Your task to perform on an android device: set default search engine in the chrome app Image 0: 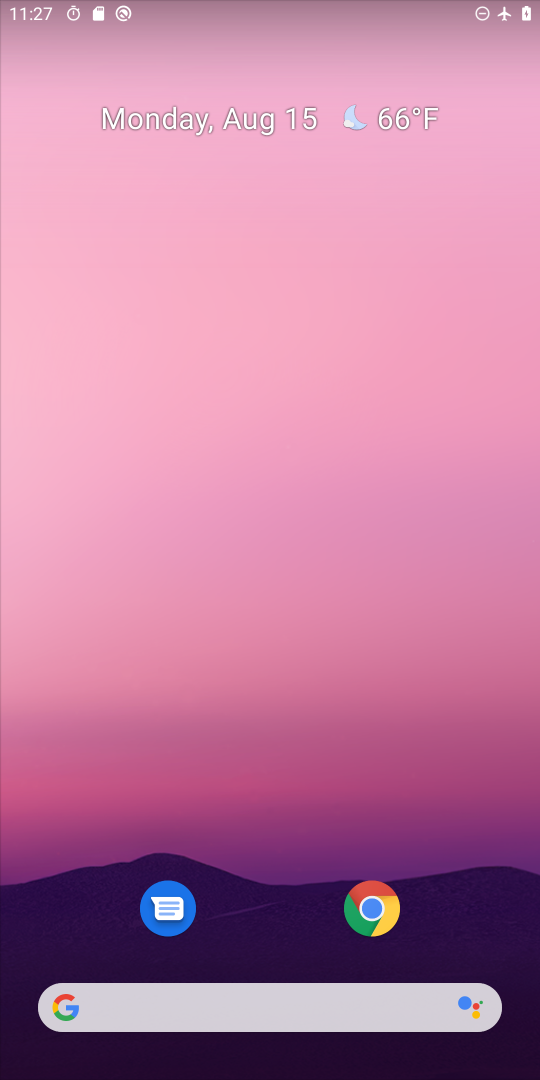
Step 0: click (378, 892)
Your task to perform on an android device: set default search engine in the chrome app Image 1: 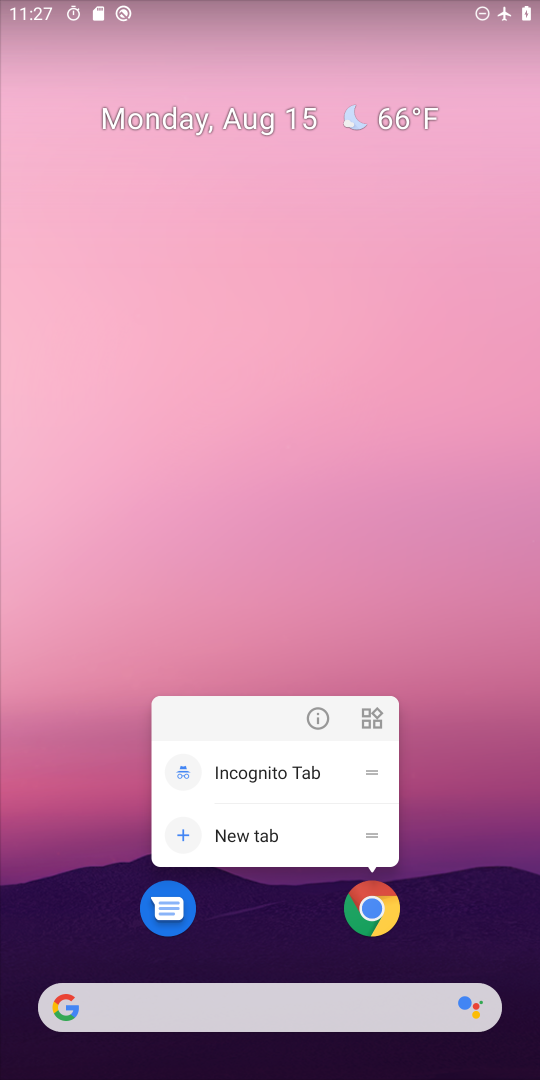
Step 1: click (379, 918)
Your task to perform on an android device: set default search engine in the chrome app Image 2: 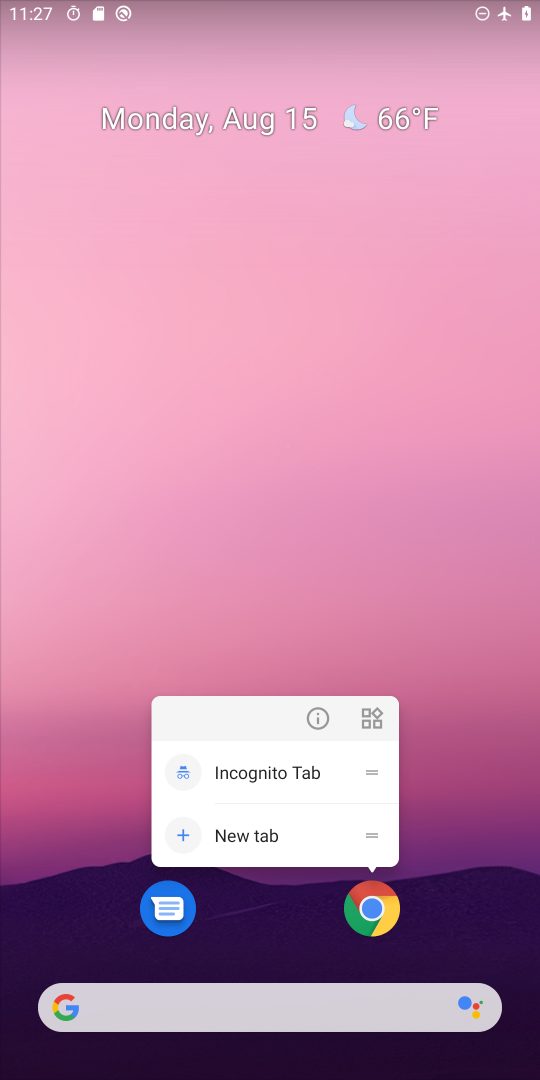
Step 2: click (366, 913)
Your task to perform on an android device: set default search engine in the chrome app Image 3: 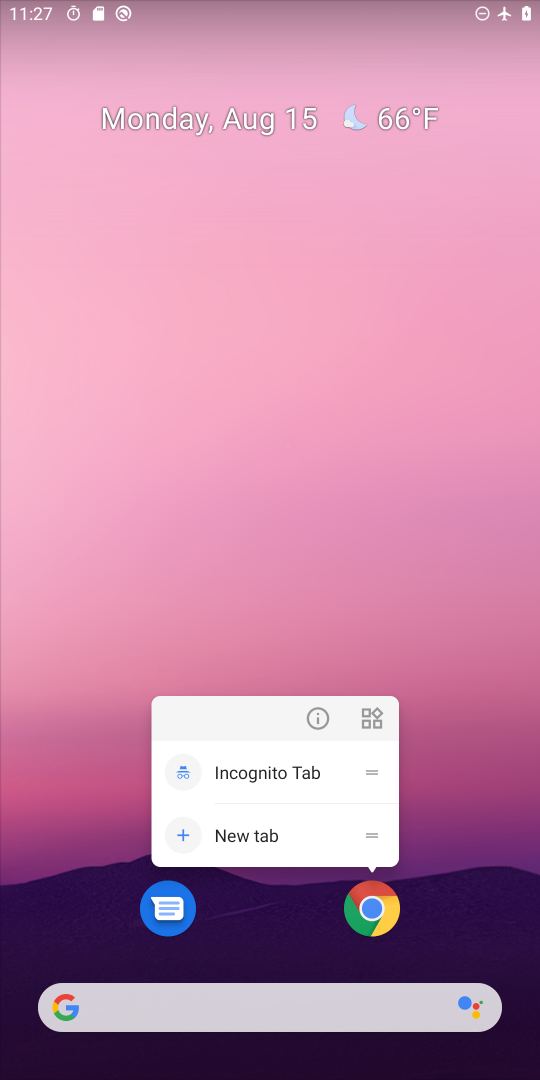
Step 3: click (366, 913)
Your task to perform on an android device: set default search engine in the chrome app Image 4: 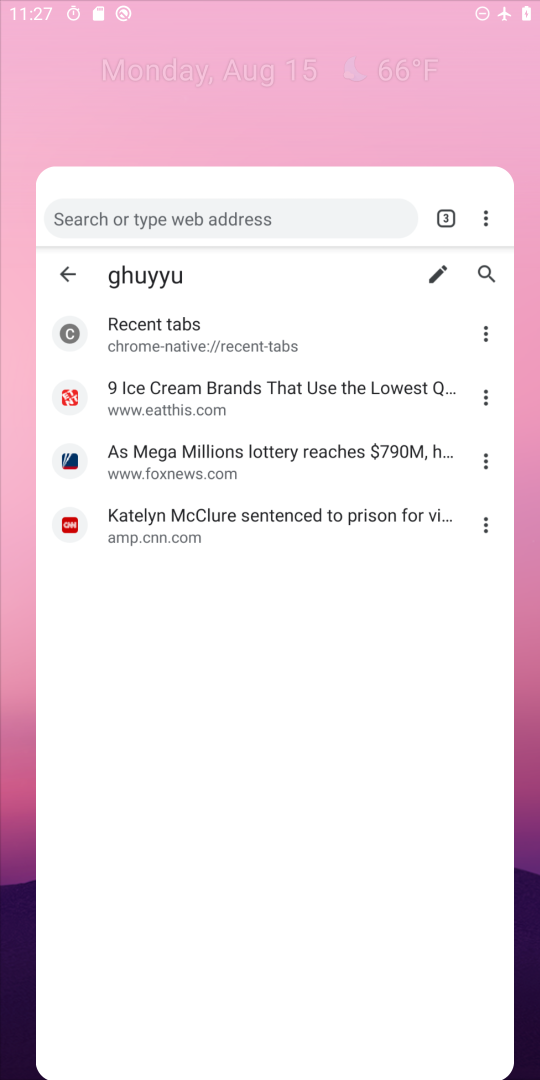
Step 4: click (366, 913)
Your task to perform on an android device: set default search engine in the chrome app Image 5: 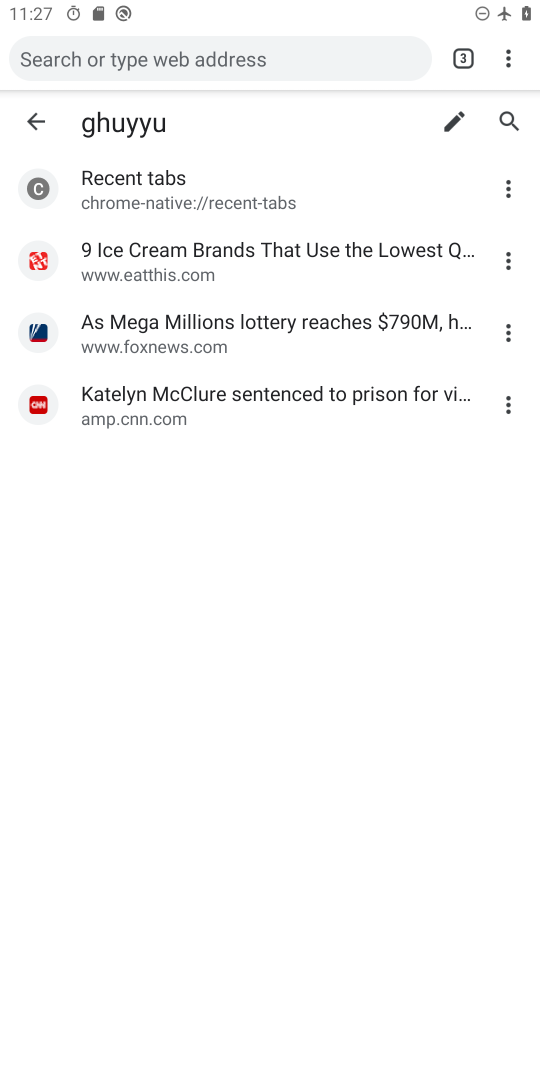
Step 5: click (519, 61)
Your task to perform on an android device: set default search engine in the chrome app Image 6: 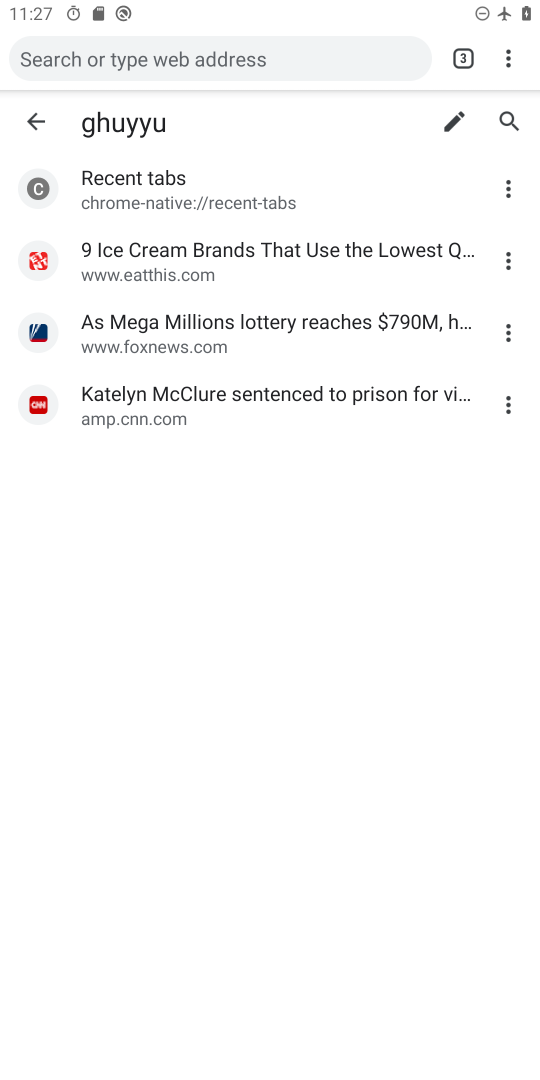
Step 6: click (499, 53)
Your task to perform on an android device: set default search engine in the chrome app Image 7: 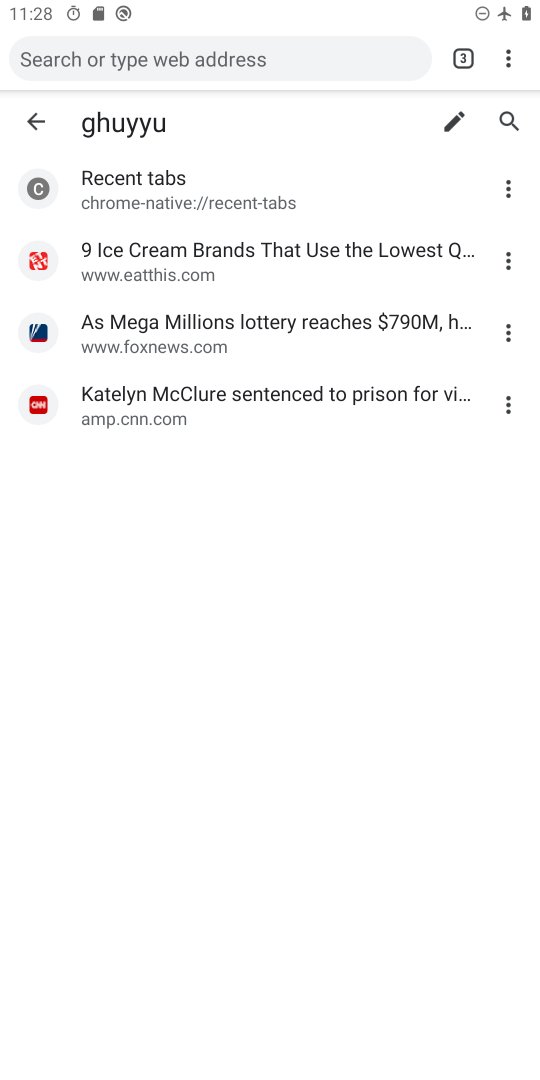
Step 7: click (506, 48)
Your task to perform on an android device: set default search engine in the chrome app Image 8: 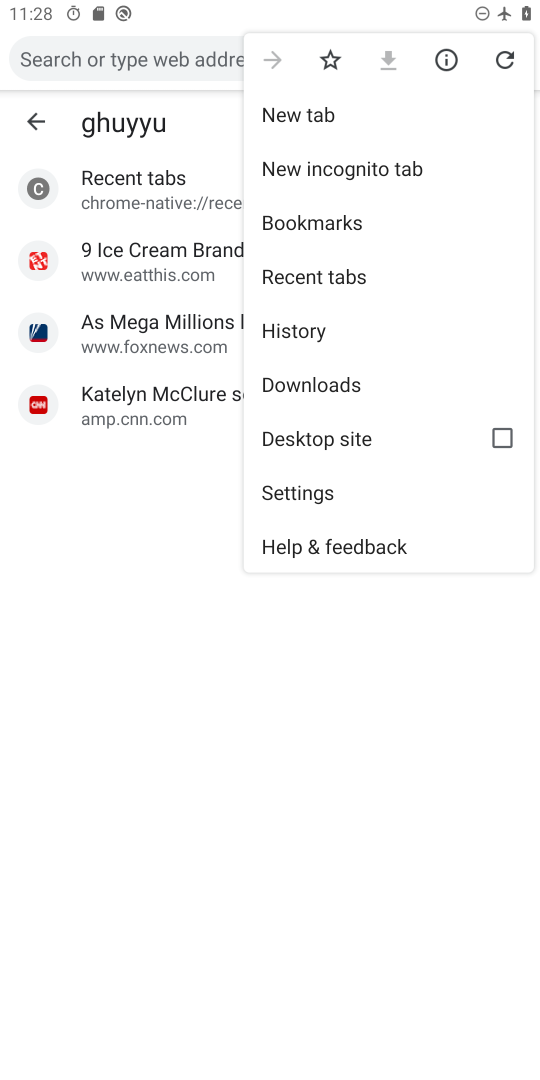
Step 8: click (320, 488)
Your task to perform on an android device: set default search engine in the chrome app Image 9: 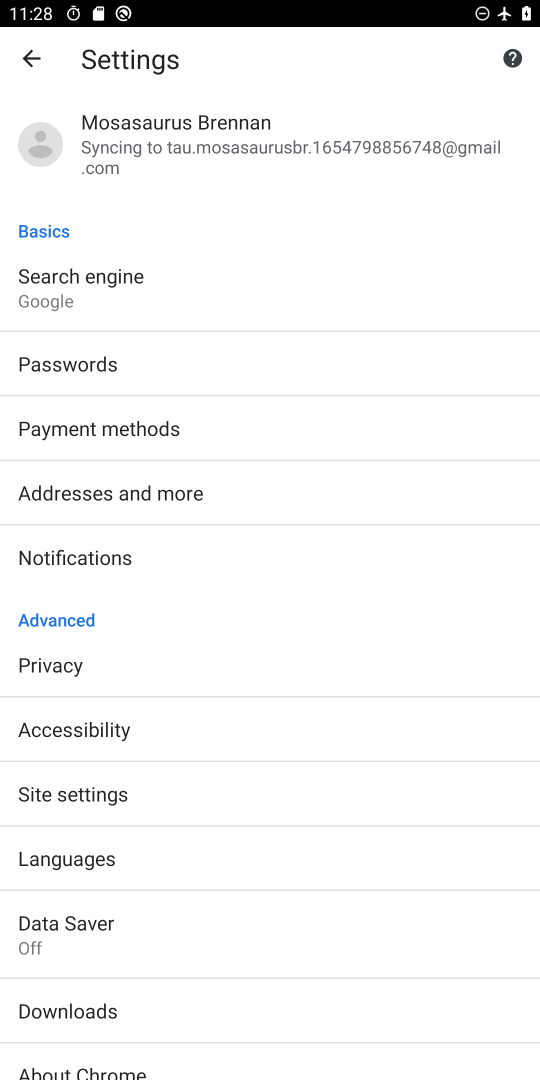
Step 9: click (61, 281)
Your task to perform on an android device: set default search engine in the chrome app Image 10: 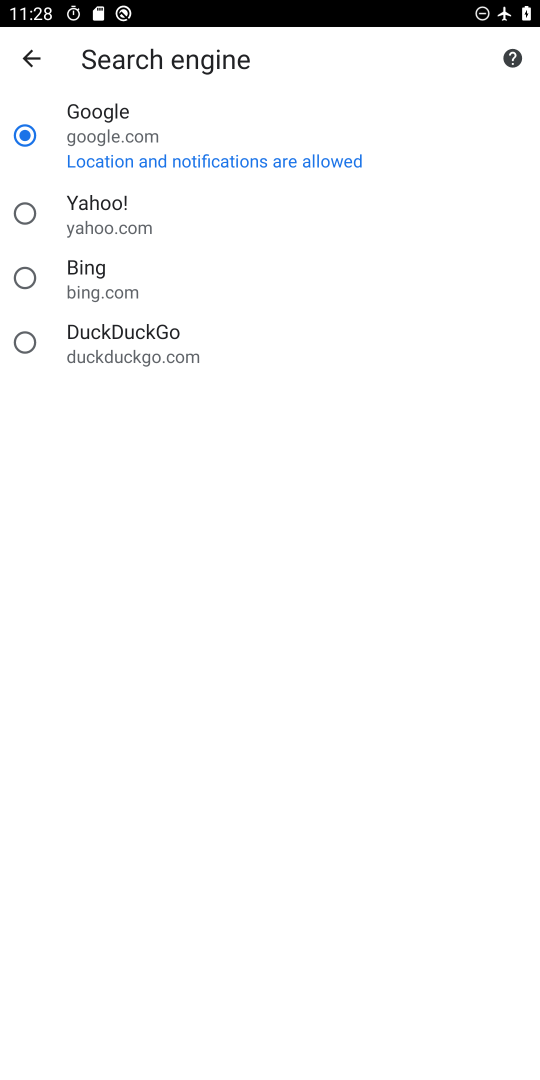
Step 10: click (61, 281)
Your task to perform on an android device: set default search engine in the chrome app Image 11: 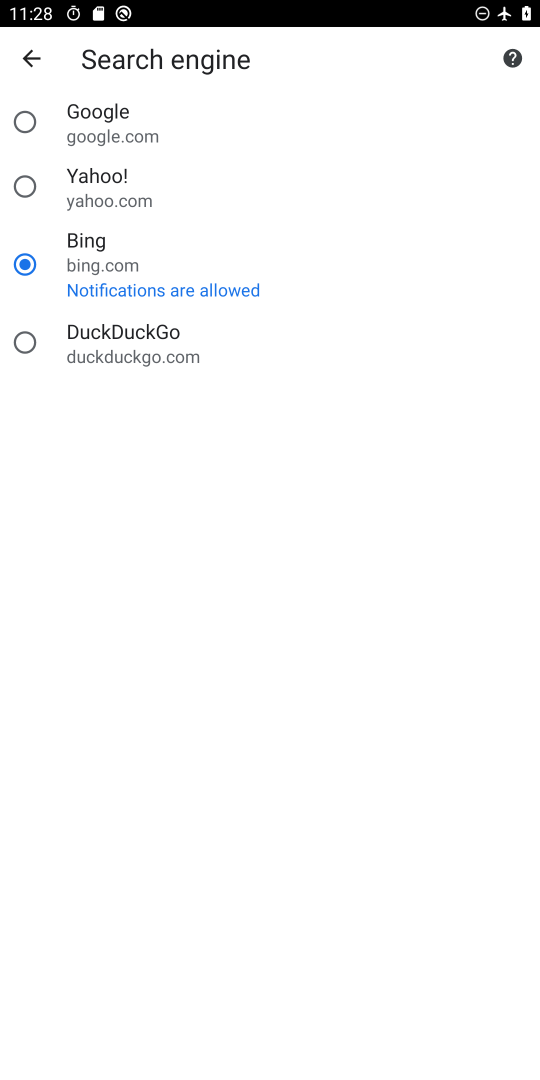
Step 11: task complete